Your task to perform on an android device: install app "Messages" Image 0: 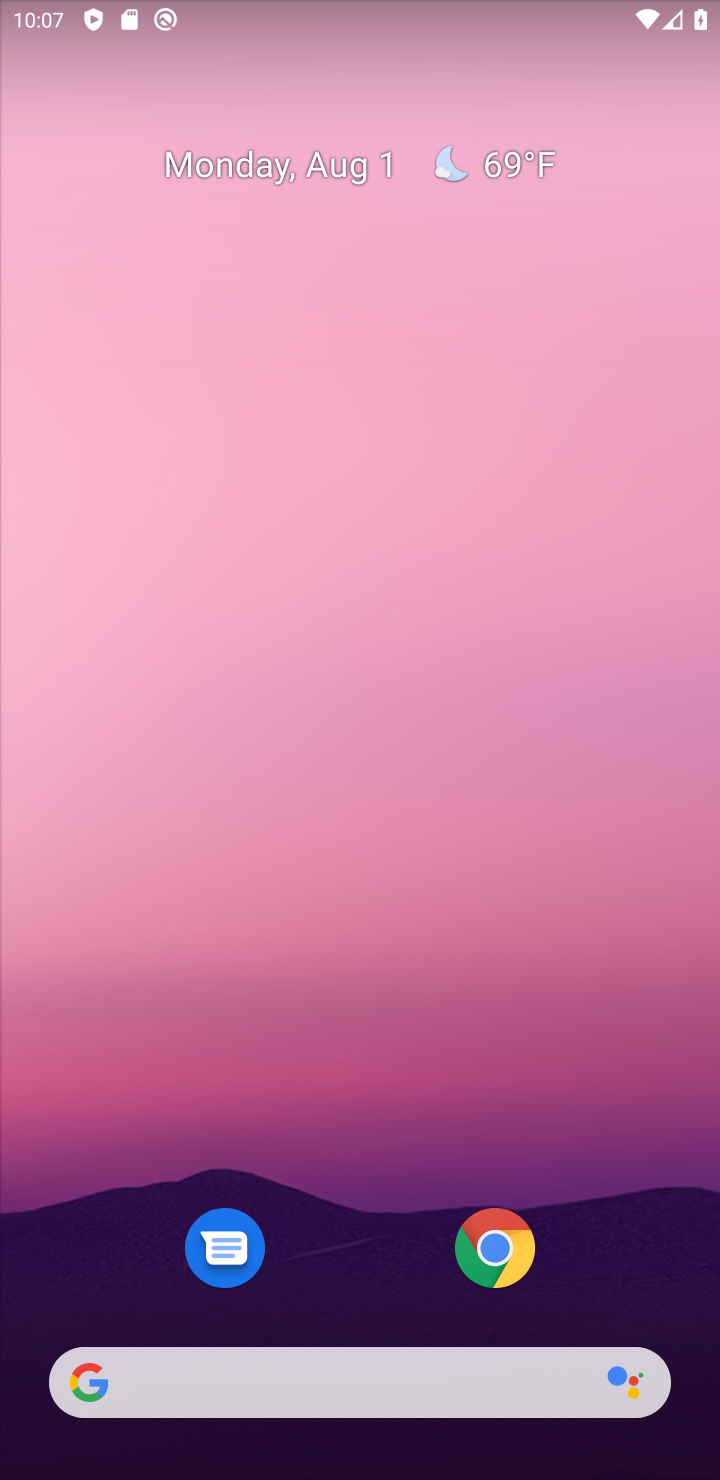
Step 0: drag from (356, 988) to (505, 14)
Your task to perform on an android device: install app "Messages" Image 1: 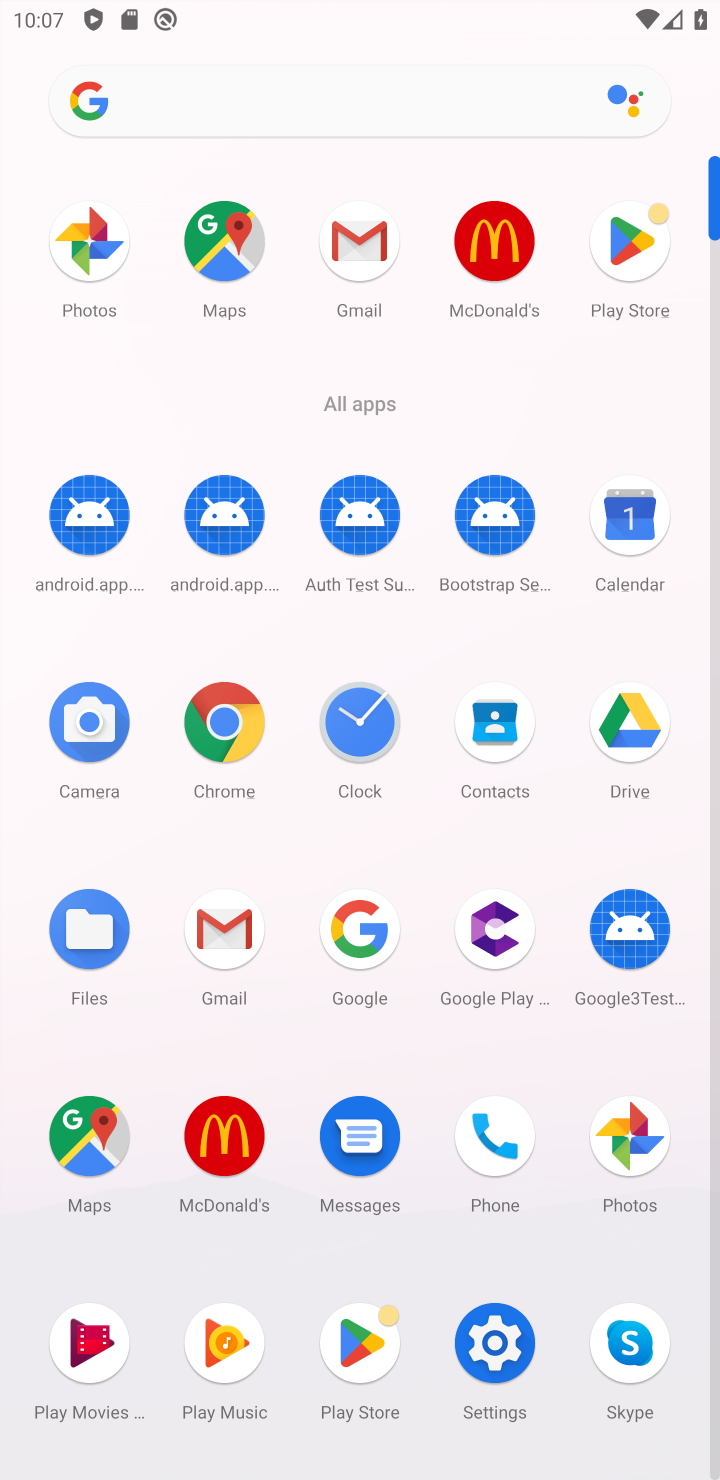
Step 1: click (349, 1348)
Your task to perform on an android device: install app "Messages" Image 2: 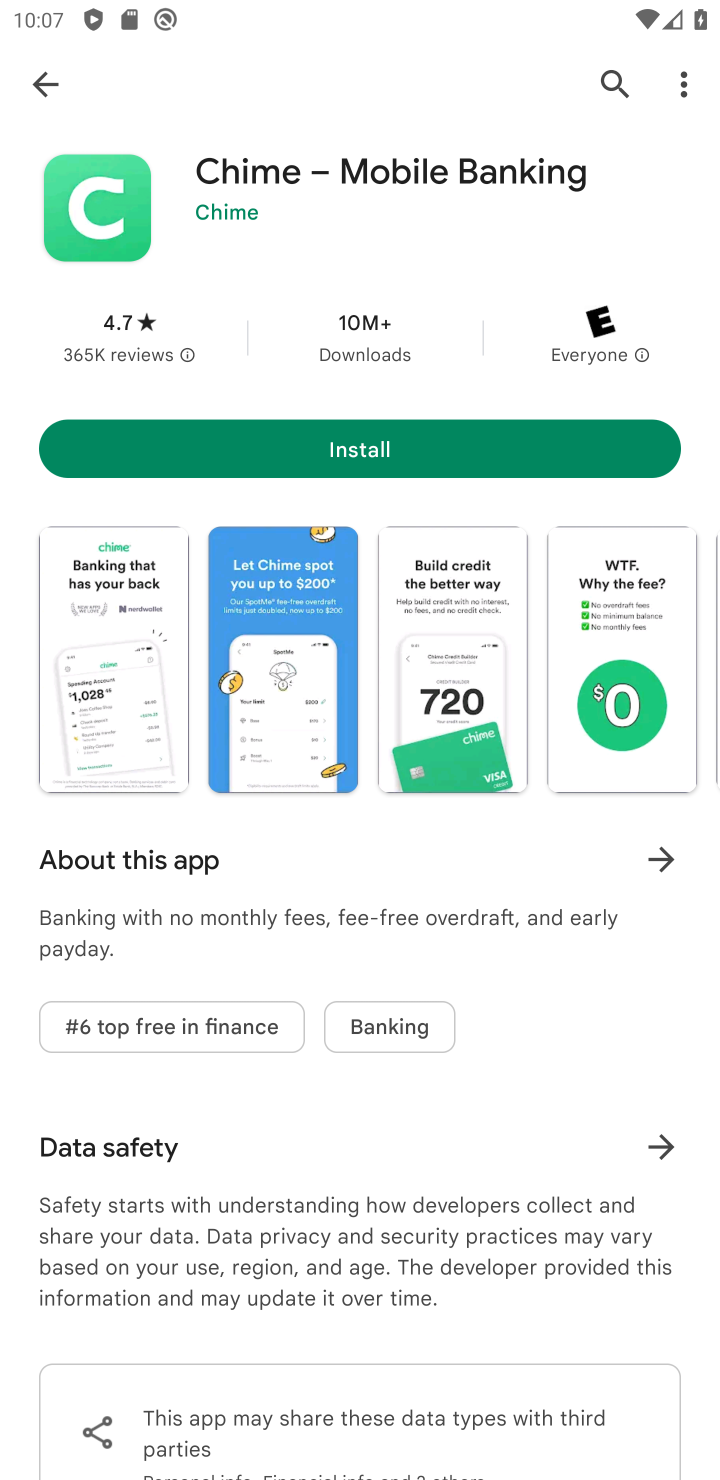
Step 2: click (612, 89)
Your task to perform on an android device: install app "Messages" Image 3: 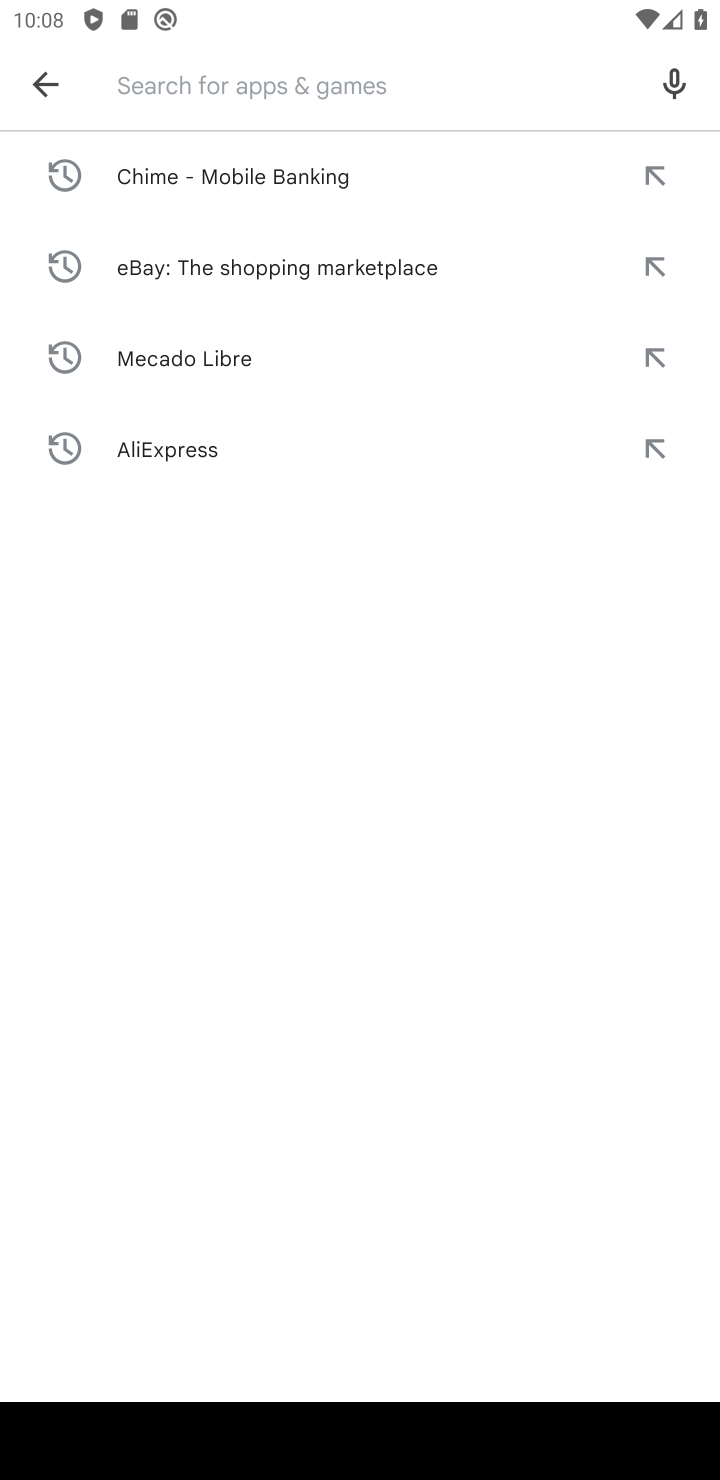
Step 3: type "Messages"
Your task to perform on an android device: install app "Messages" Image 4: 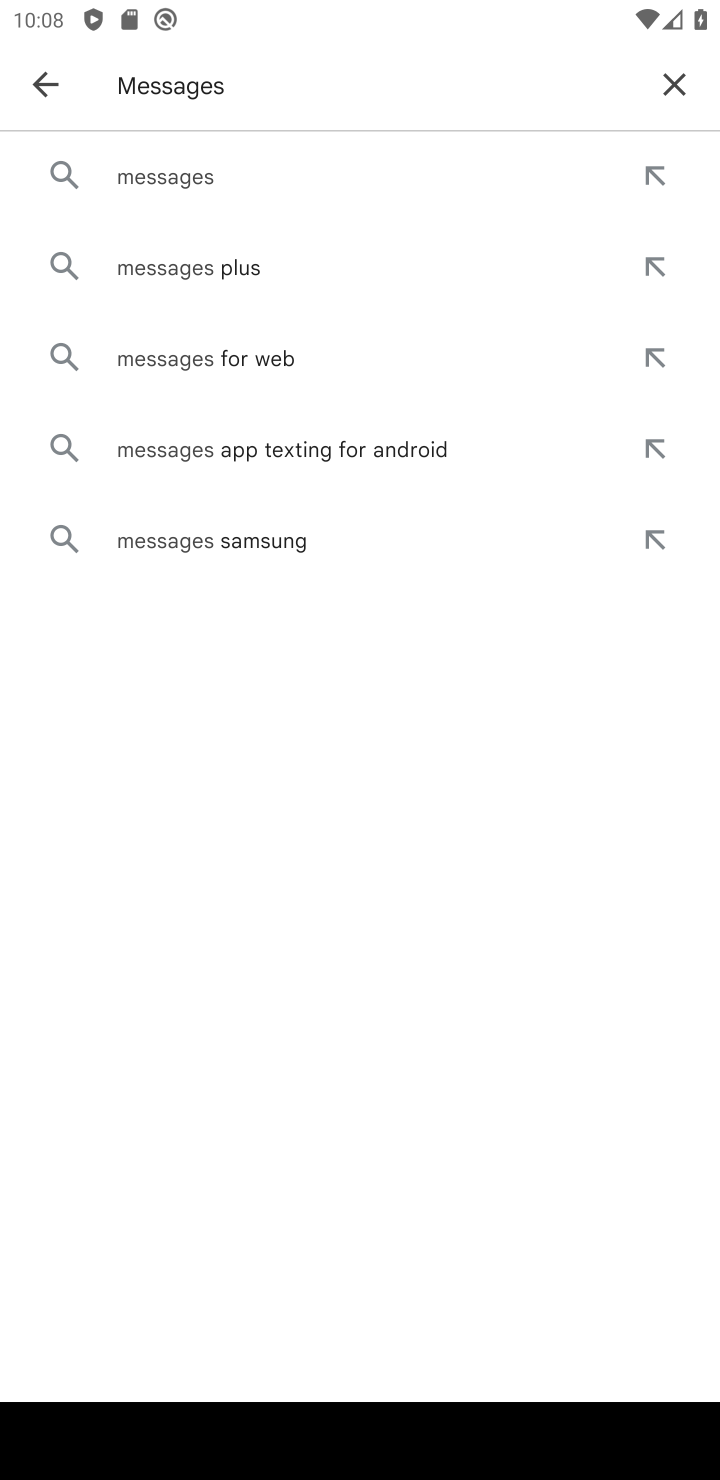
Step 4: press enter
Your task to perform on an android device: install app "Messages" Image 5: 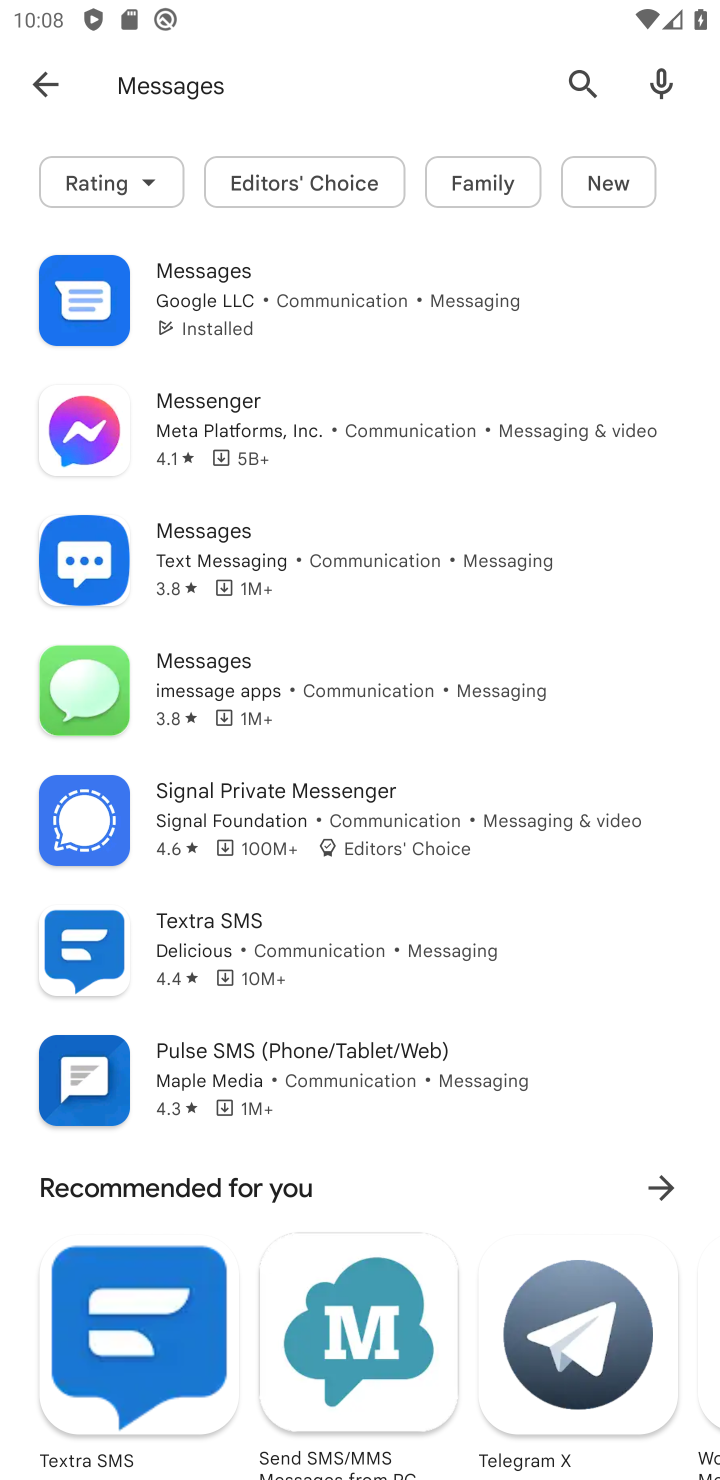
Step 5: click (309, 313)
Your task to perform on an android device: install app "Messages" Image 6: 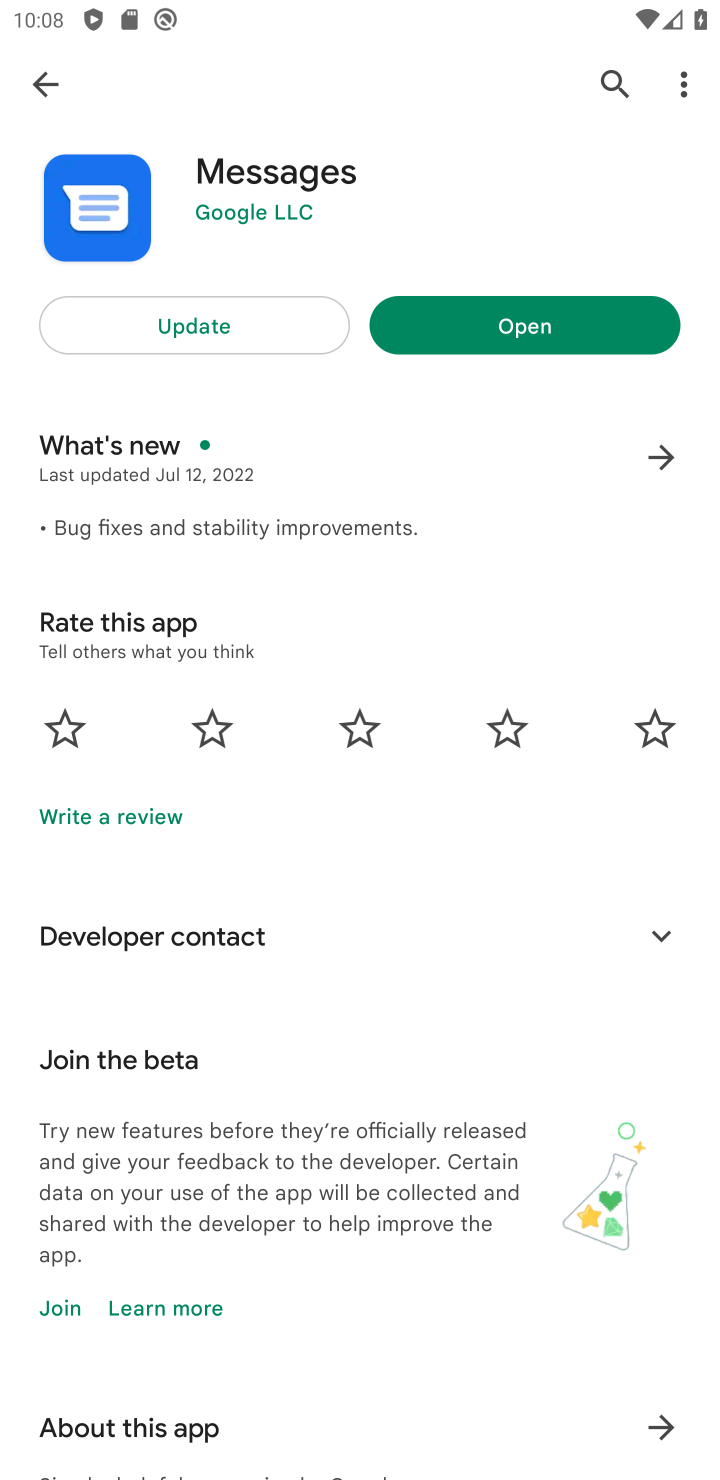
Step 6: task complete